Your task to perform on an android device: turn on bluetooth scan Image 0: 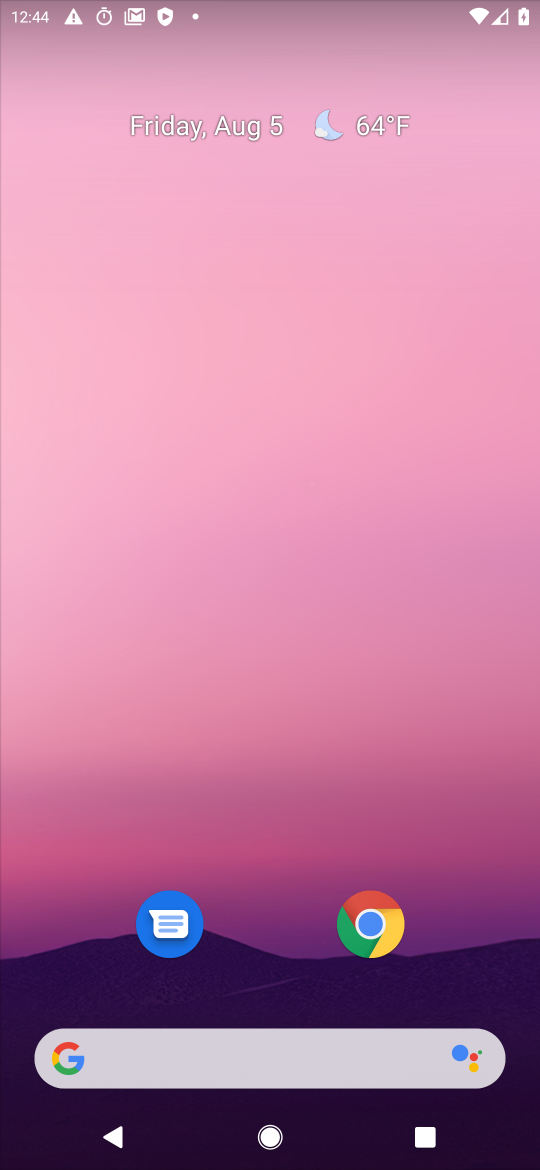
Step 0: press home button
Your task to perform on an android device: turn on bluetooth scan Image 1: 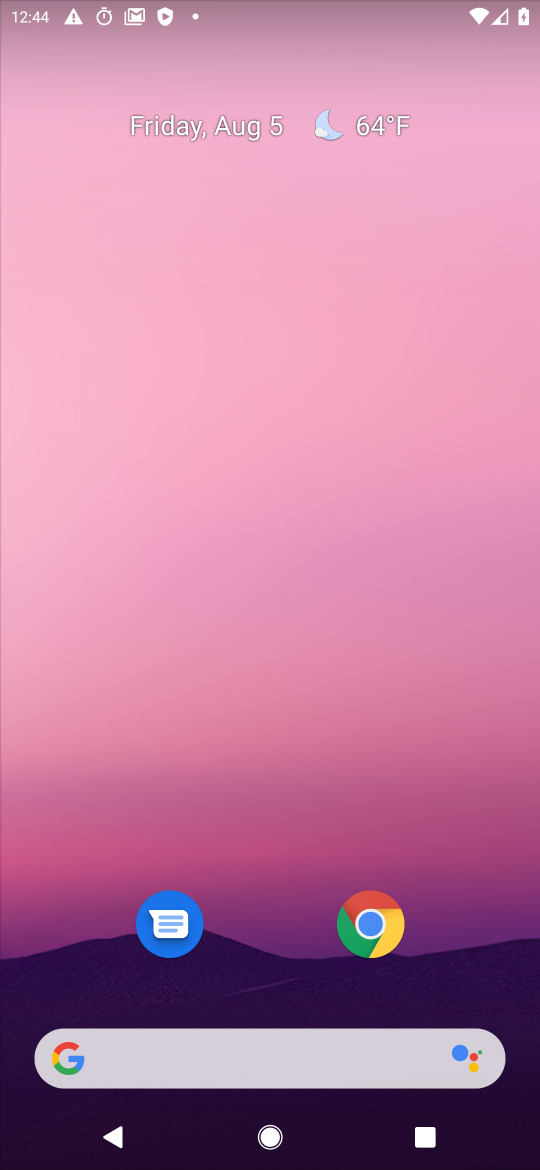
Step 1: drag from (336, 924) to (324, 330)
Your task to perform on an android device: turn on bluetooth scan Image 2: 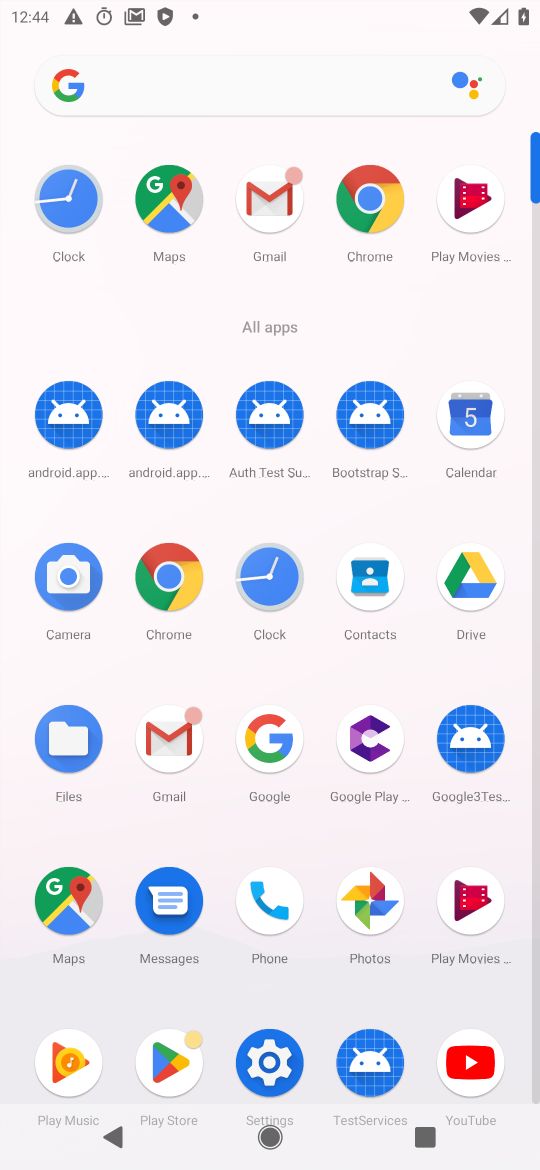
Step 2: click (276, 1053)
Your task to perform on an android device: turn on bluetooth scan Image 3: 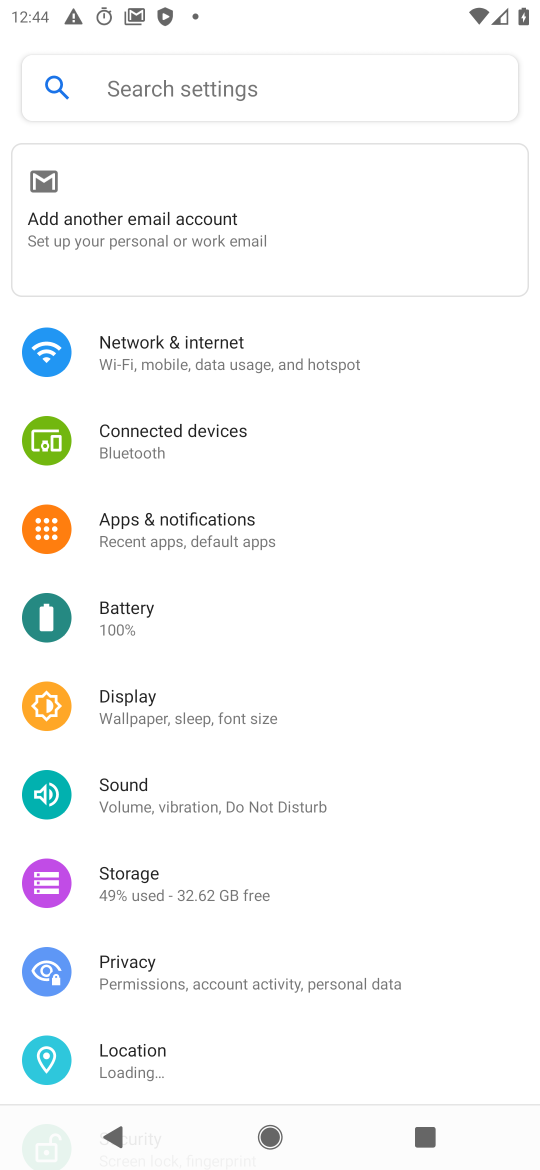
Step 3: click (144, 1056)
Your task to perform on an android device: turn on bluetooth scan Image 4: 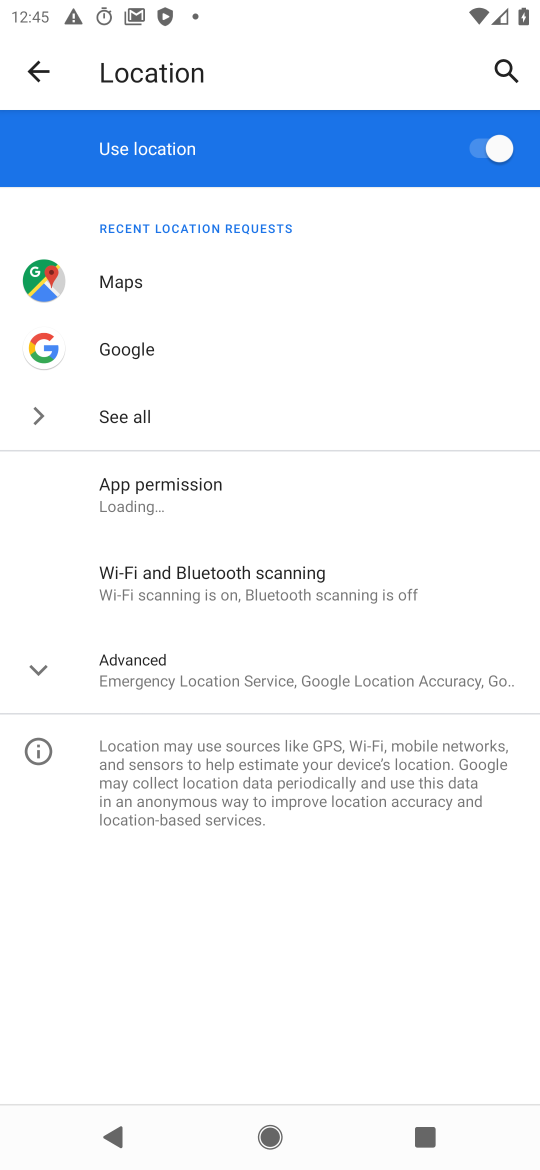
Step 4: drag from (157, 498) to (151, 585)
Your task to perform on an android device: turn on bluetooth scan Image 5: 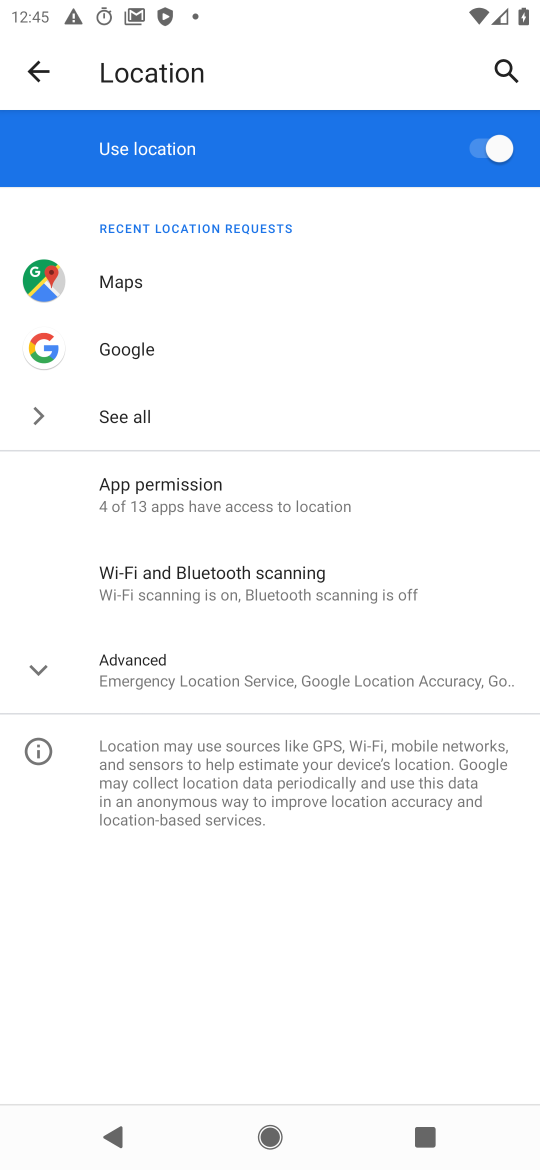
Step 5: click (151, 585)
Your task to perform on an android device: turn on bluetooth scan Image 6: 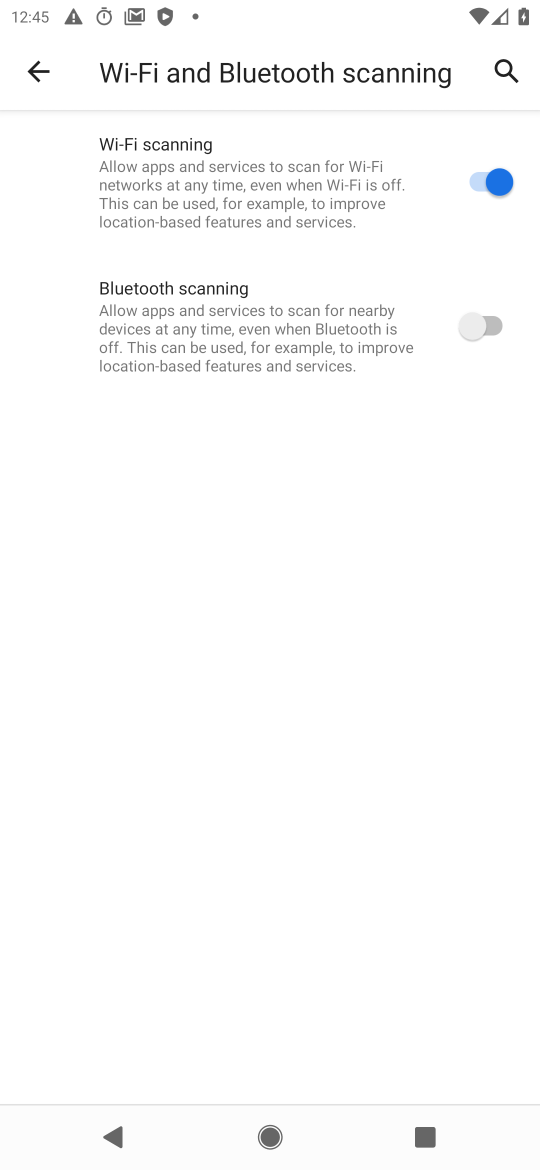
Step 6: click (481, 321)
Your task to perform on an android device: turn on bluetooth scan Image 7: 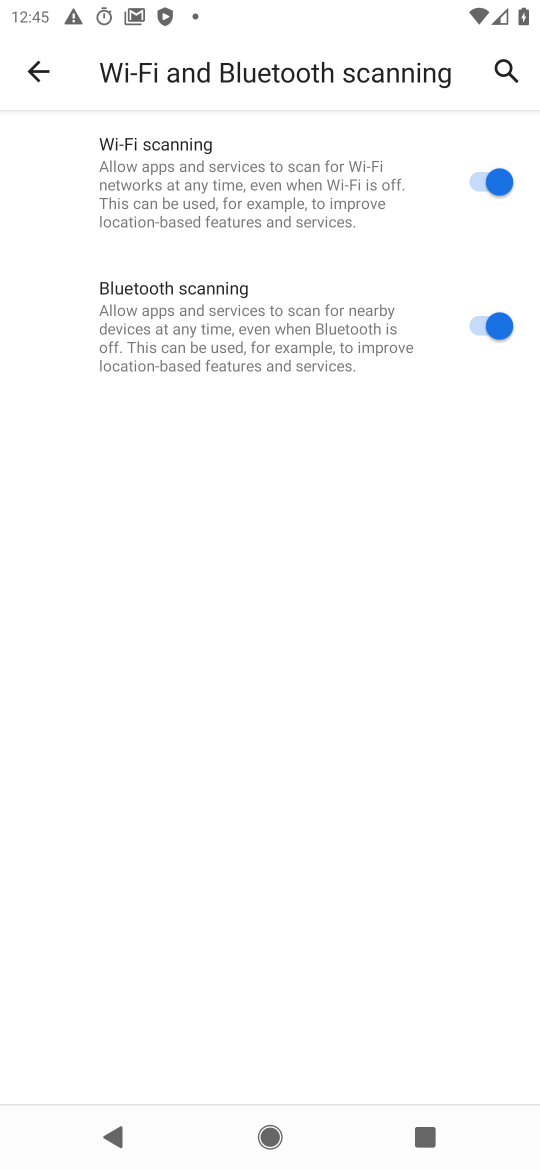
Step 7: task complete